Your task to perform on an android device: star an email in the gmail app Image 0: 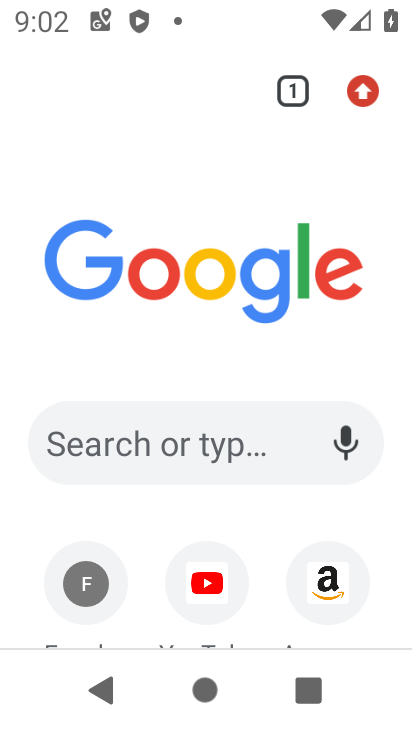
Step 0: press home button
Your task to perform on an android device: star an email in the gmail app Image 1: 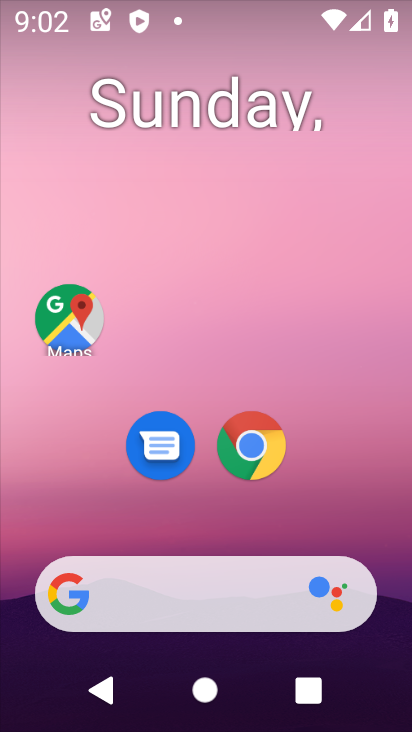
Step 1: drag from (395, 576) to (360, 47)
Your task to perform on an android device: star an email in the gmail app Image 2: 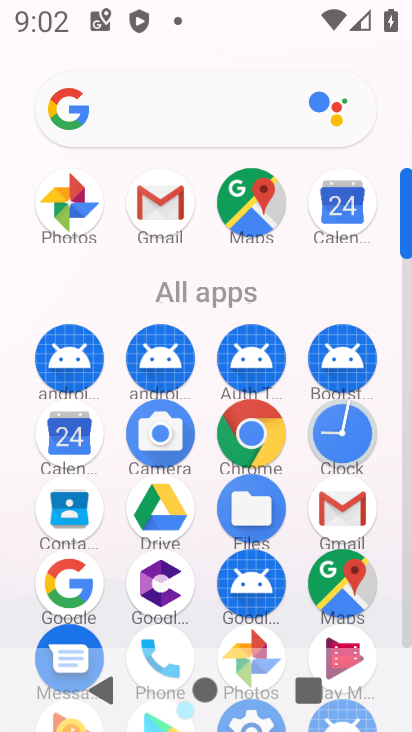
Step 2: click (408, 618)
Your task to perform on an android device: star an email in the gmail app Image 3: 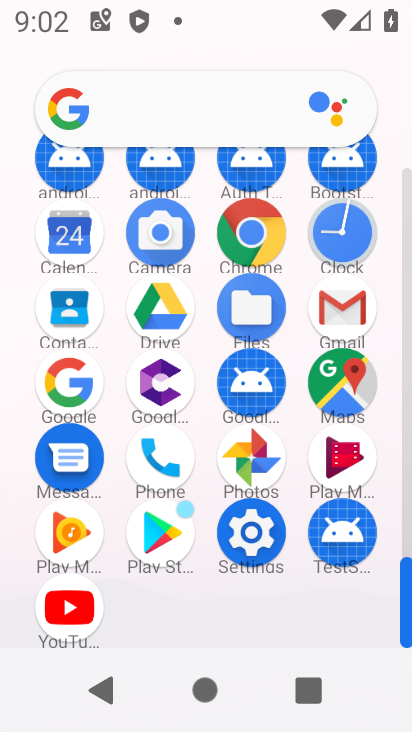
Step 3: click (340, 309)
Your task to perform on an android device: star an email in the gmail app Image 4: 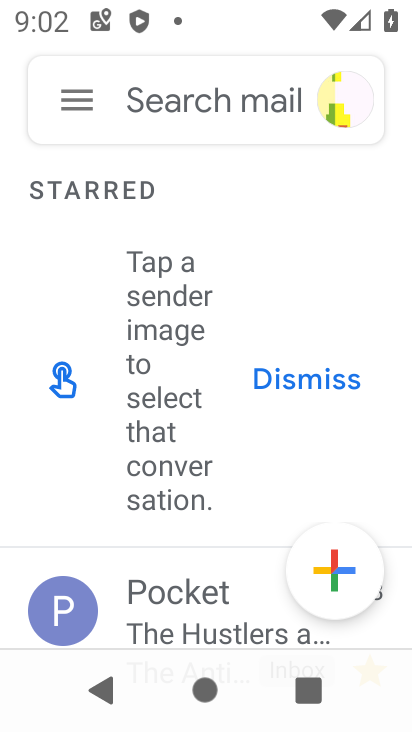
Step 4: drag from (203, 588) to (206, 144)
Your task to perform on an android device: star an email in the gmail app Image 5: 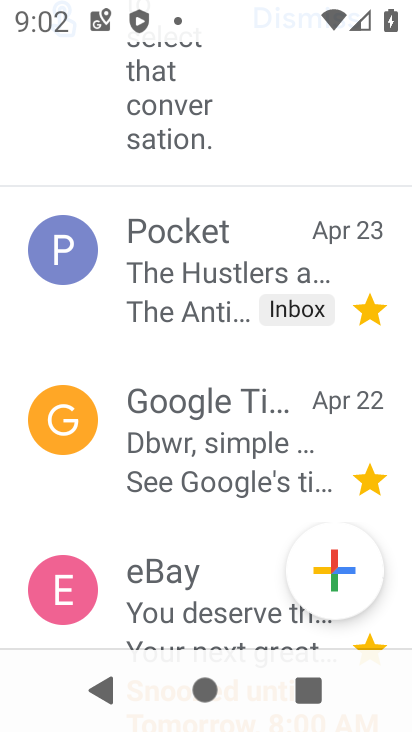
Step 5: drag from (210, 563) to (230, 13)
Your task to perform on an android device: star an email in the gmail app Image 6: 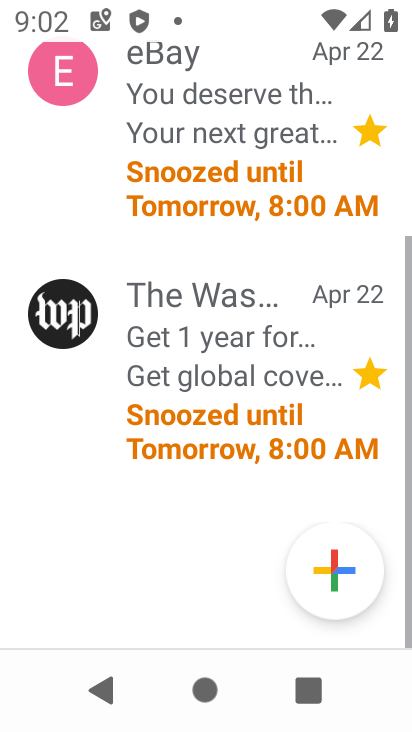
Step 6: drag from (191, 285) to (161, 549)
Your task to perform on an android device: star an email in the gmail app Image 7: 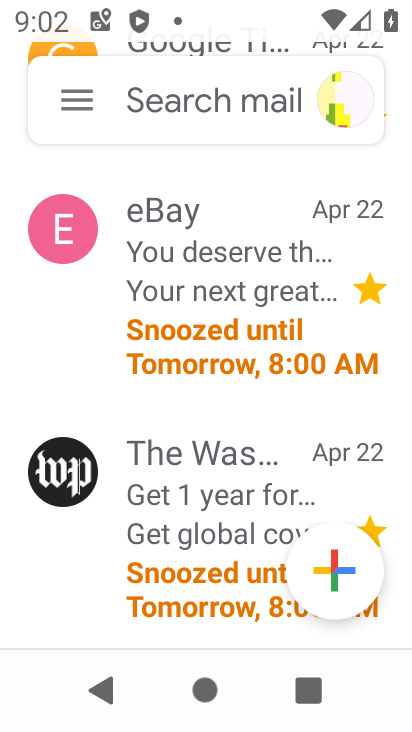
Step 7: drag from (206, 205) to (187, 483)
Your task to perform on an android device: star an email in the gmail app Image 8: 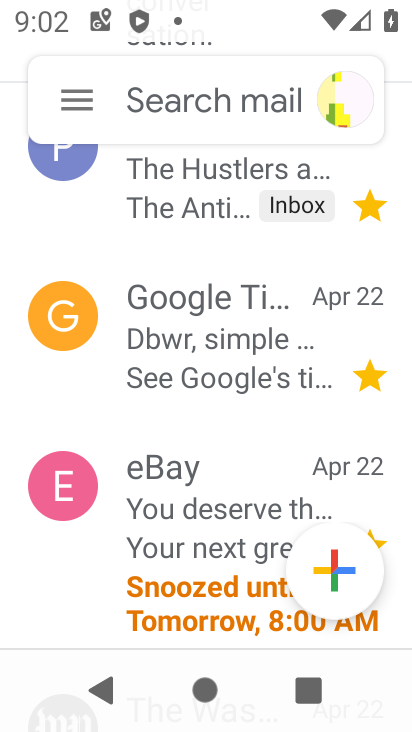
Step 8: drag from (237, 271) to (232, 536)
Your task to perform on an android device: star an email in the gmail app Image 9: 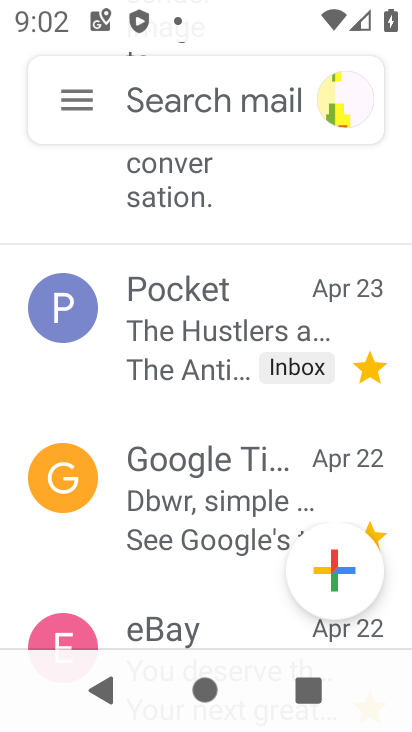
Step 9: drag from (252, 247) to (265, 518)
Your task to perform on an android device: star an email in the gmail app Image 10: 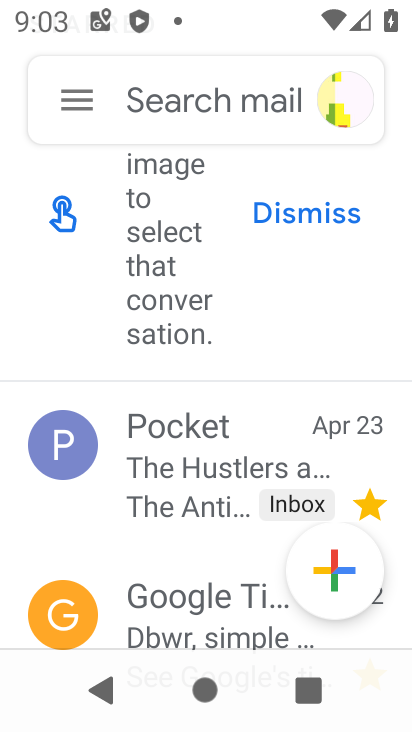
Step 10: click (77, 99)
Your task to perform on an android device: star an email in the gmail app Image 11: 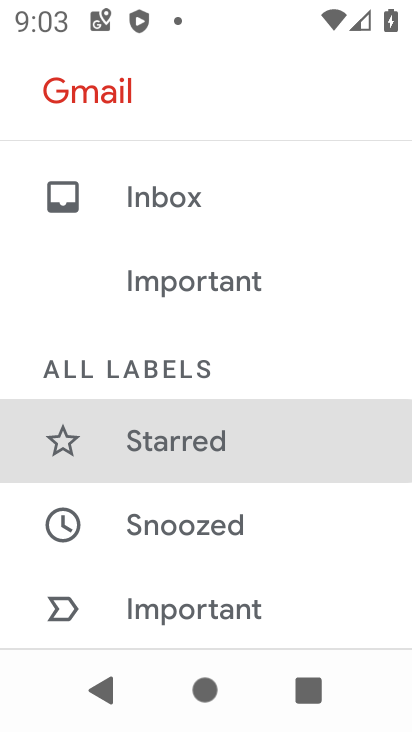
Step 11: task complete